Your task to perform on an android device: manage bookmarks in the chrome app Image 0: 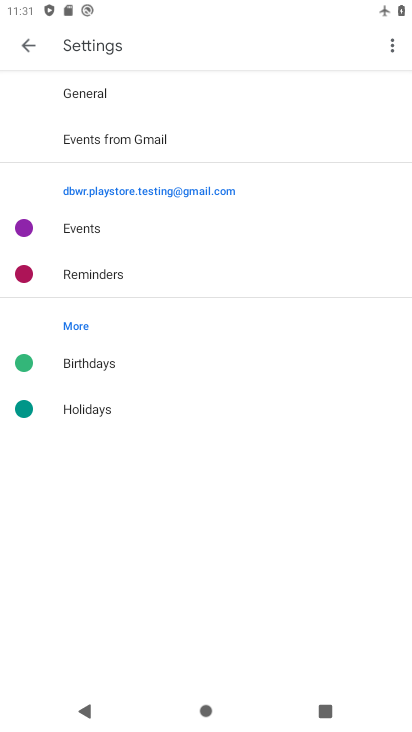
Step 0: press home button
Your task to perform on an android device: manage bookmarks in the chrome app Image 1: 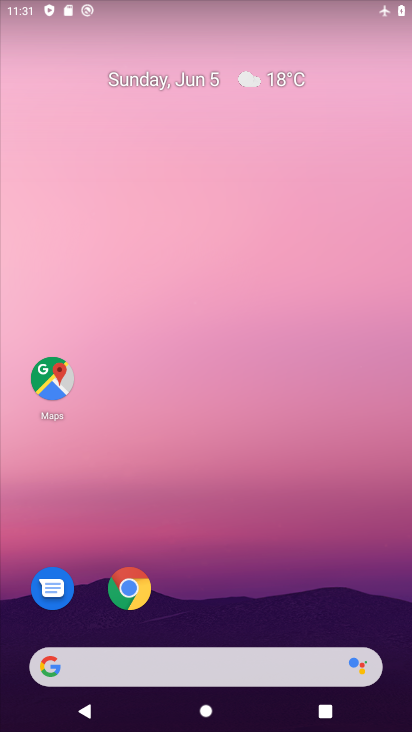
Step 1: click (124, 605)
Your task to perform on an android device: manage bookmarks in the chrome app Image 2: 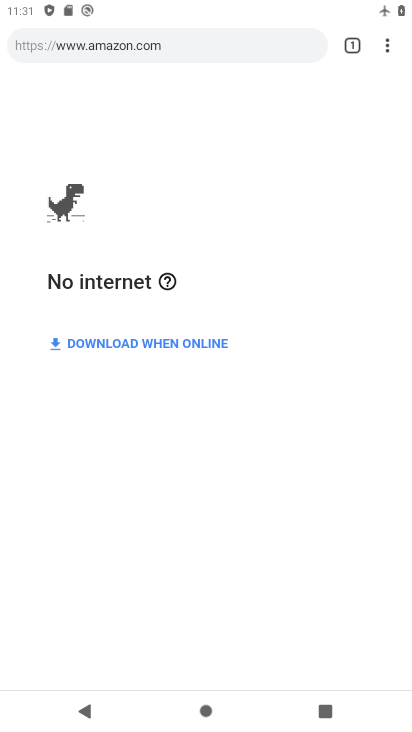
Step 2: click (393, 46)
Your task to perform on an android device: manage bookmarks in the chrome app Image 3: 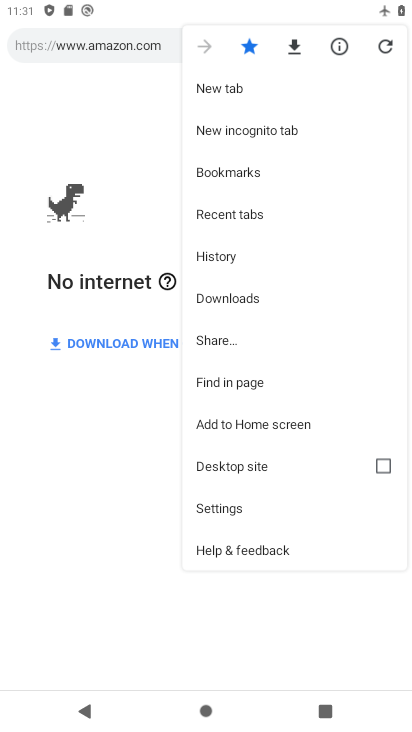
Step 3: click (337, 171)
Your task to perform on an android device: manage bookmarks in the chrome app Image 4: 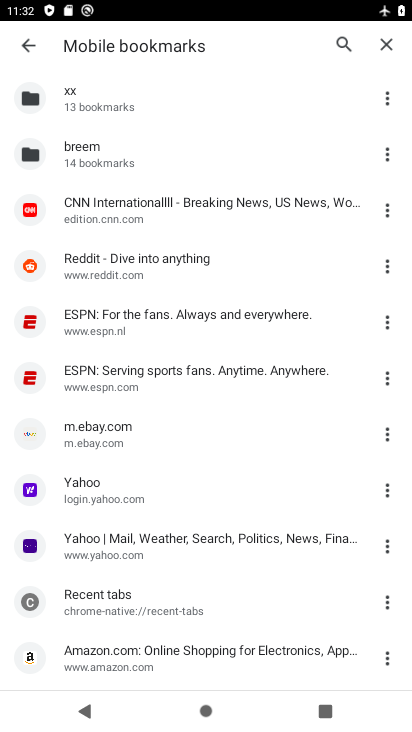
Step 4: click (230, 204)
Your task to perform on an android device: manage bookmarks in the chrome app Image 5: 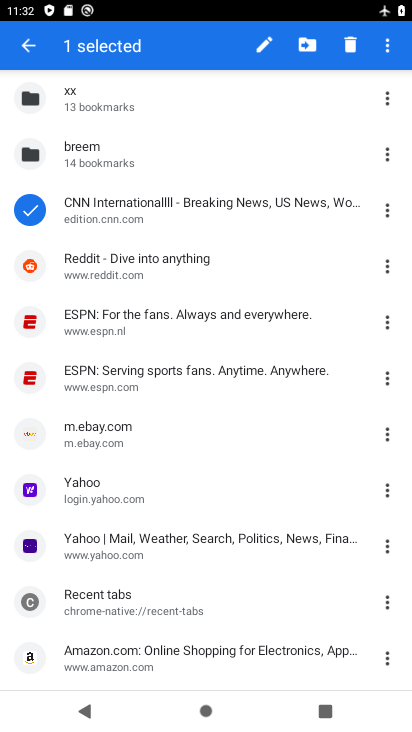
Step 5: click (310, 46)
Your task to perform on an android device: manage bookmarks in the chrome app Image 6: 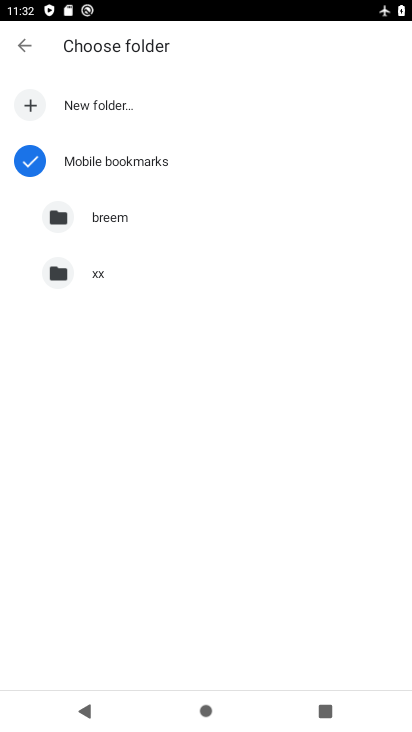
Step 6: click (188, 213)
Your task to perform on an android device: manage bookmarks in the chrome app Image 7: 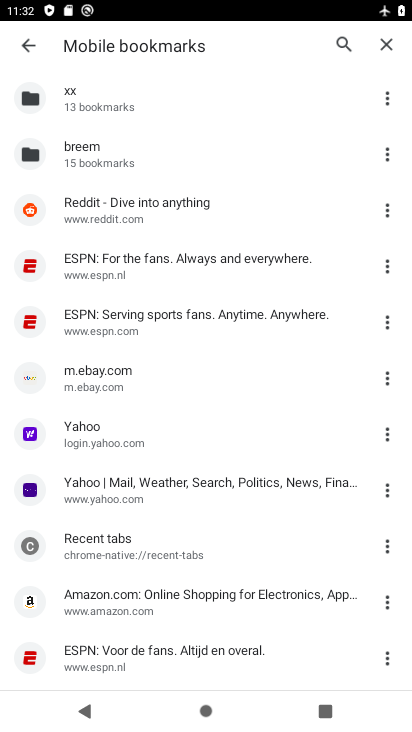
Step 7: task complete